Your task to perform on an android device: Go to network settings Image 0: 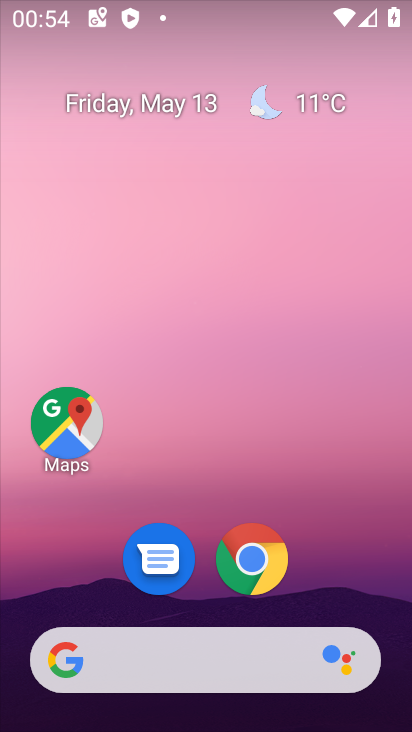
Step 0: drag from (337, 572) to (402, 77)
Your task to perform on an android device: Go to network settings Image 1: 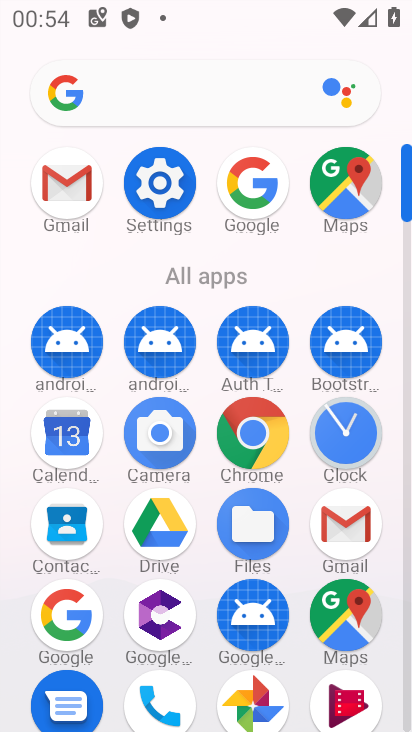
Step 1: click (165, 174)
Your task to perform on an android device: Go to network settings Image 2: 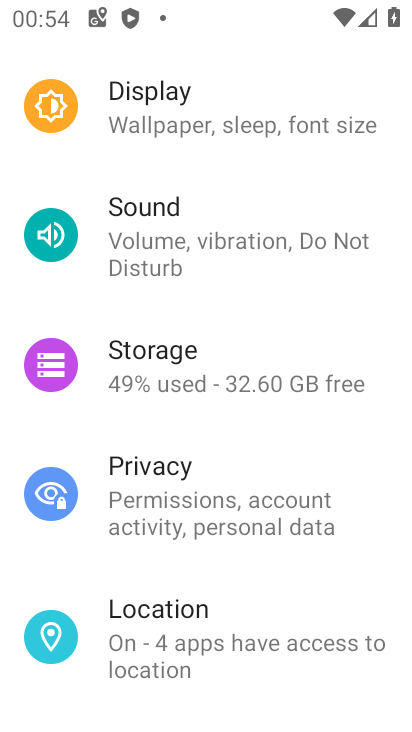
Step 2: drag from (185, 143) to (363, 678)
Your task to perform on an android device: Go to network settings Image 3: 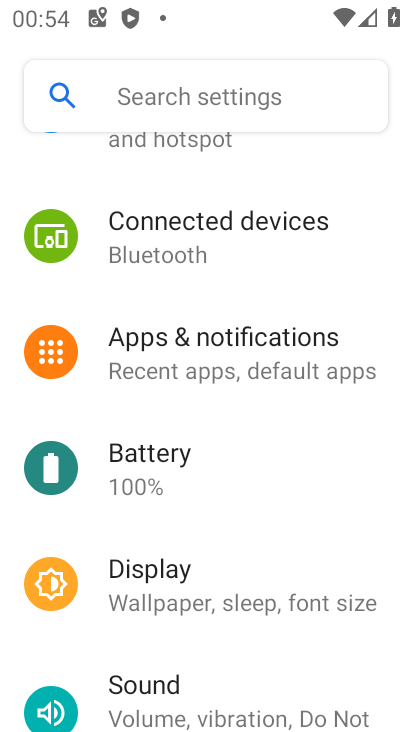
Step 3: drag from (203, 228) to (268, 598)
Your task to perform on an android device: Go to network settings Image 4: 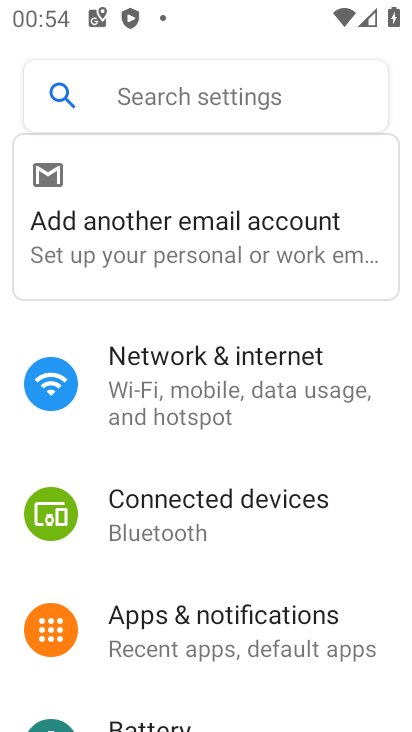
Step 4: click (224, 389)
Your task to perform on an android device: Go to network settings Image 5: 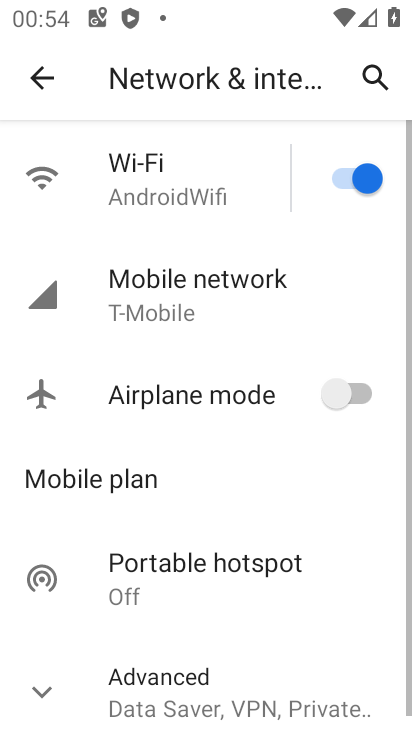
Step 5: click (137, 301)
Your task to perform on an android device: Go to network settings Image 6: 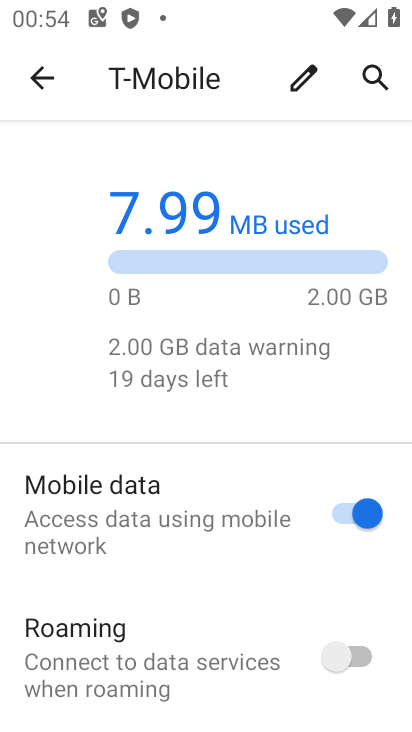
Step 6: task complete